Your task to perform on an android device: turn off location Image 0: 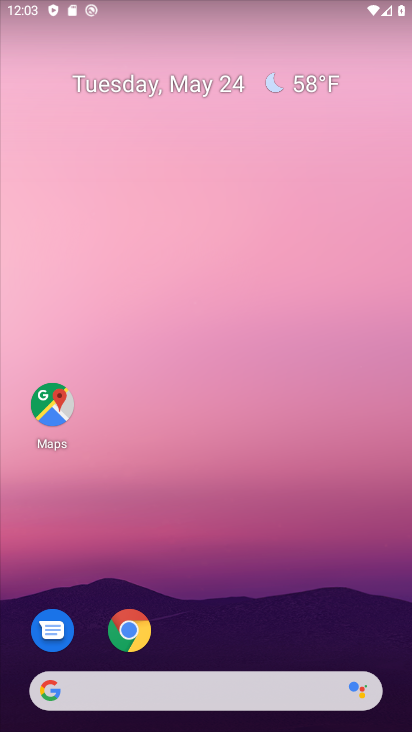
Step 0: drag from (255, 613) to (260, 44)
Your task to perform on an android device: turn off location Image 1: 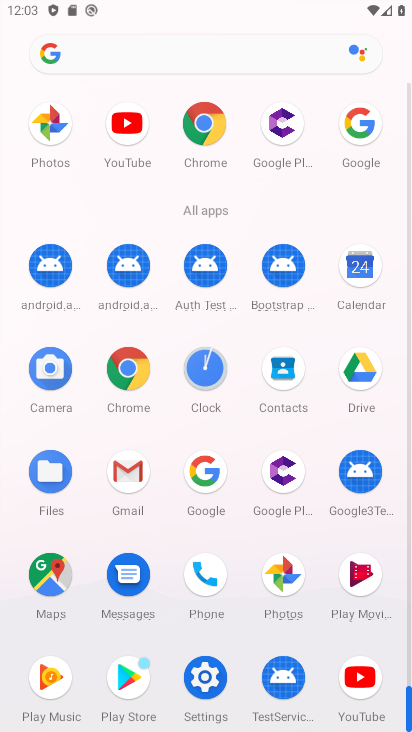
Step 1: drag from (163, 549) to (170, 321)
Your task to perform on an android device: turn off location Image 2: 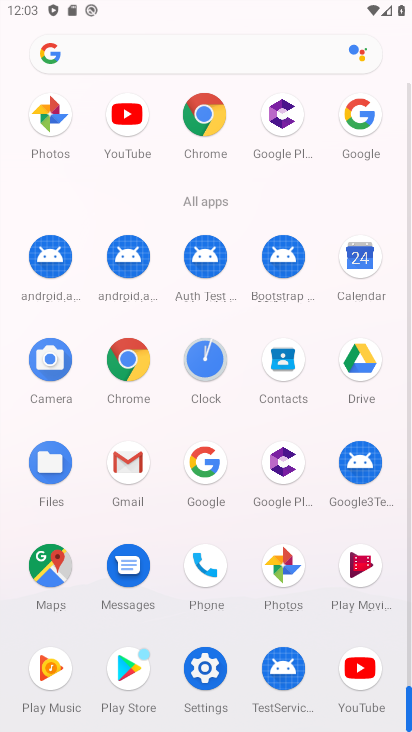
Step 2: click (204, 667)
Your task to perform on an android device: turn off location Image 3: 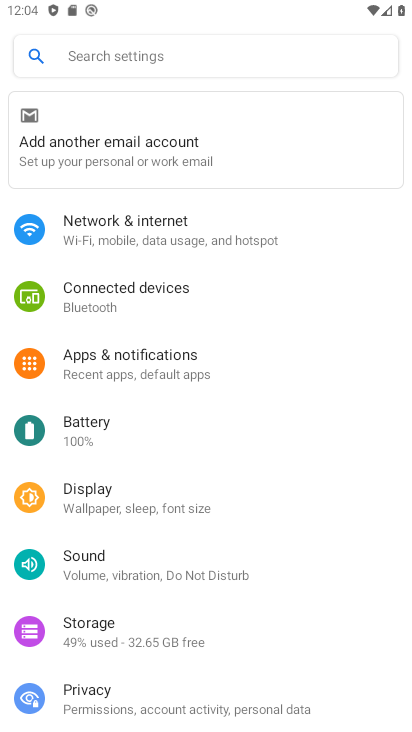
Step 3: drag from (101, 602) to (160, 509)
Your task to perform on an android device: turn off location Image 4: 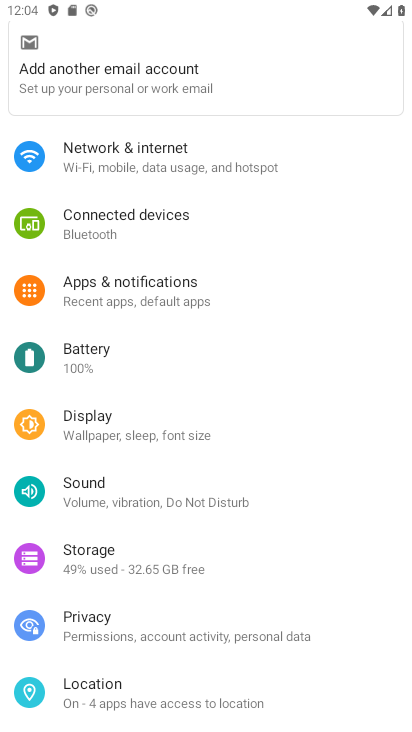
Step 4: drag from (94, 648) to (131, 514)
Your task to perform on an android device: turn off location Image 5: 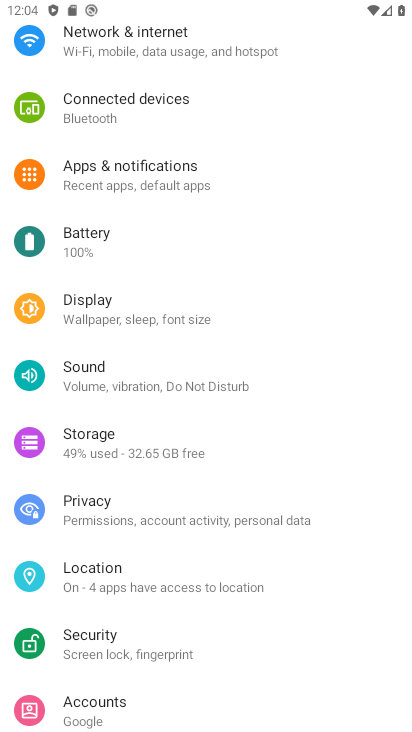
Step 5: click (127, 585)
Your task to perform on an android device: turn off location Image 6: 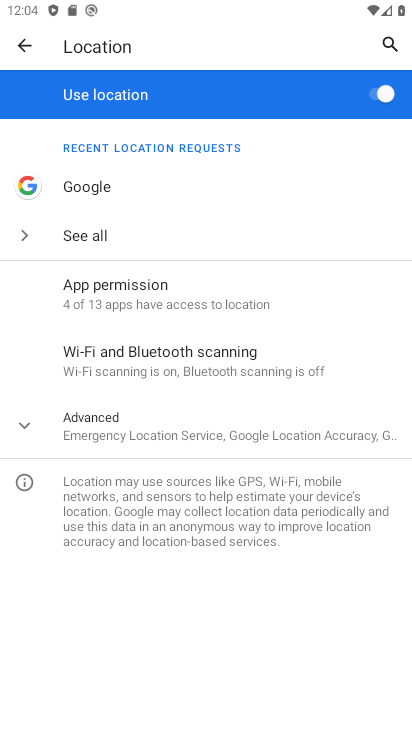
Step 6: click (383, 97)
Your task to perform on an android device: turn off location Image 7: 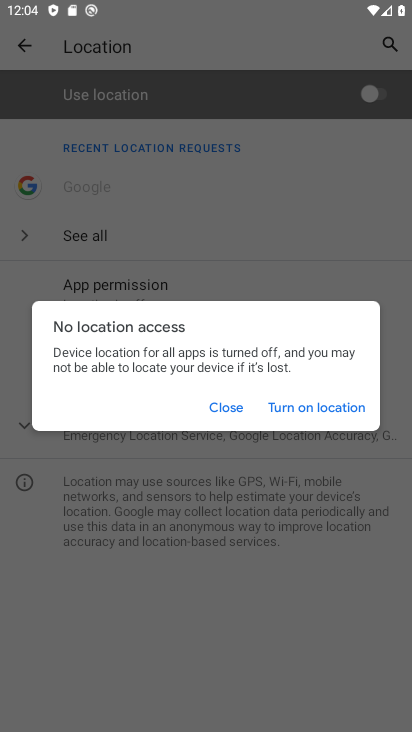
Step 7: click (221, 403)
Your task to perform on an android device: turn off location Image 8: 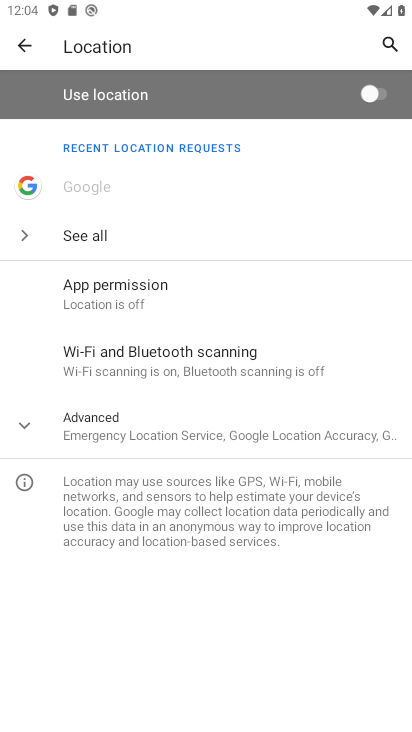
Step 8: task complete